Your task to perform on an android device: turn on translation in the chrome app Image 0: 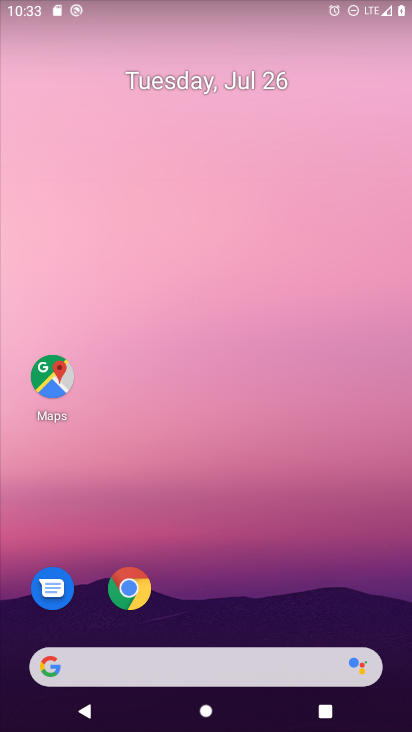
Step 0: drag from (171, 655) to (217, 291)
Your task to perform on an android device: turn on translation in the chrome app Image 1: 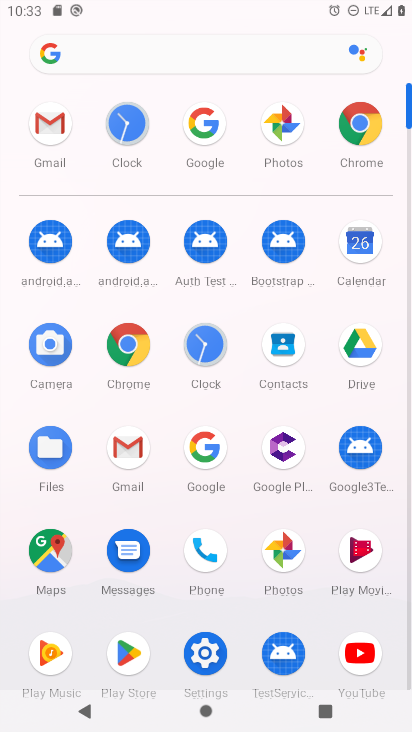
Step 1: click (363, 159)
Your task to perform on an android device: turn on translation in the chrome app Image 2: 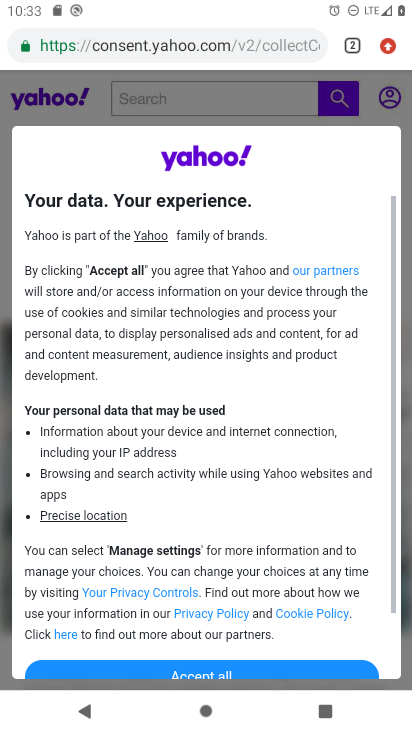
Step 2: click (389, 55)
Your task to perform on an android device: turn on translation in the chrome app Image 3: 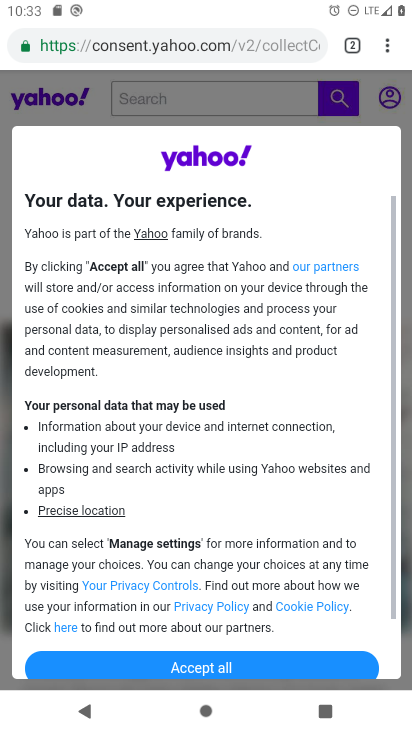
Step 3: click (389, 54)
Your task to perform on an android device: turn on translation in the chrome app Image 4: 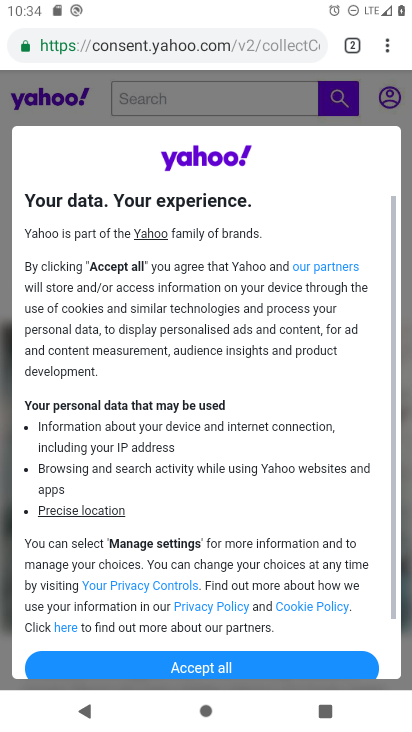
Step 4: click (391, 50)
Your task to perform on an android device: turn on translation in the chrome app Image 5: 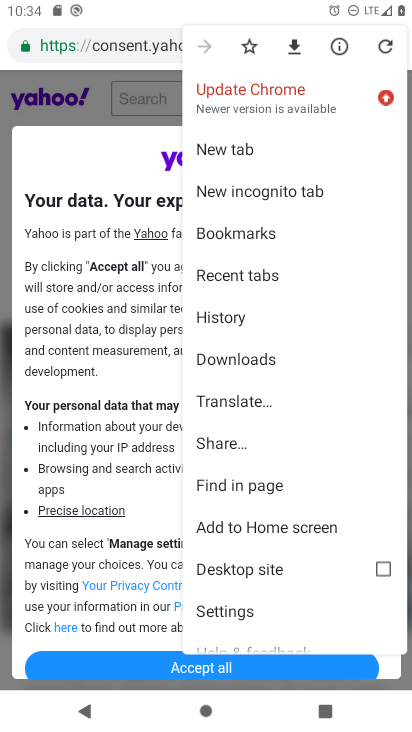
Step 5: click (247, 404)
Your task to perform on an android device: turn on translation in the chrome app Image 6: 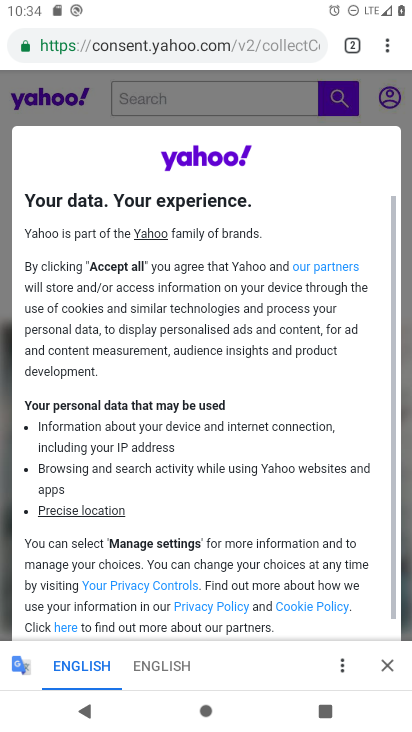
Step 6: click (344, 663)
Your task to perform on an android device: turn on translation in the chrome app Image 7: 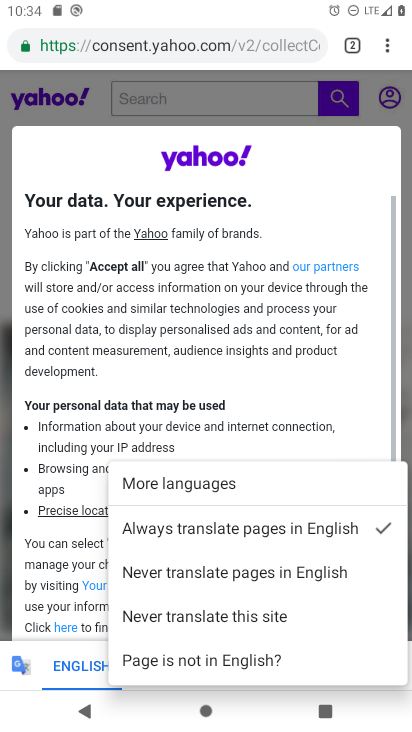
Step 7: task complete